Your task to perform on an android device: Open the map Image 0: 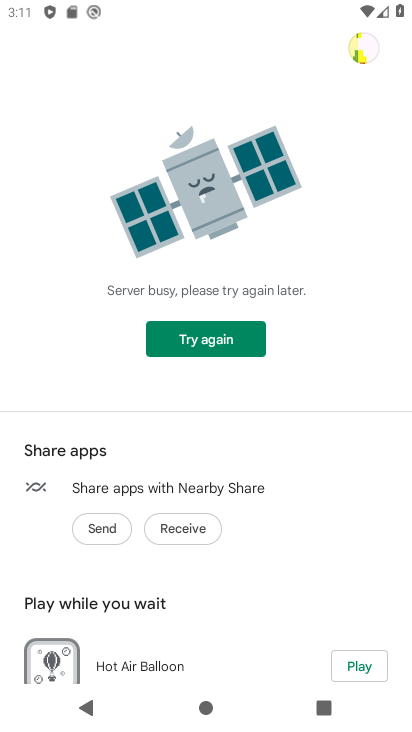
Step 0: press back button
Your task to perform on an android device: Open the map Image 1: 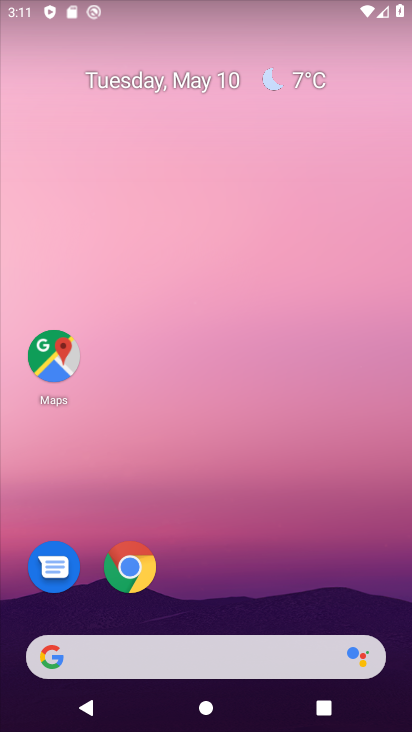
Step 1: click (53, 360)
Your task to perform on an android device: Open the map Image 2: 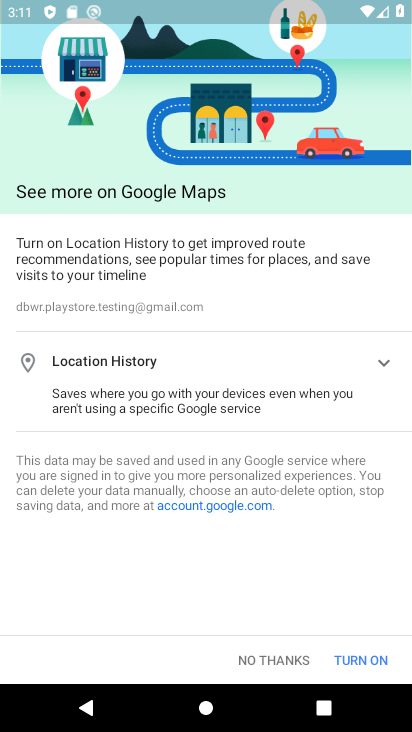
Step 2: click (288, 659)
Your task to perform on an android device: Open the map Image 3: 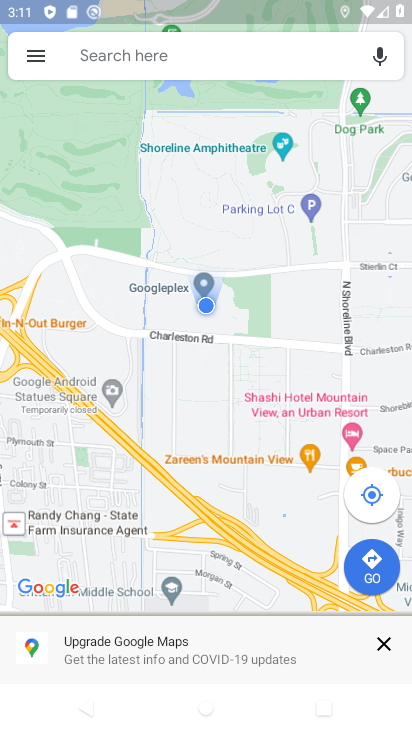
Step 3: task complete